Your task to perform on an android device: find snoozed emails in the gmail app Image 0: 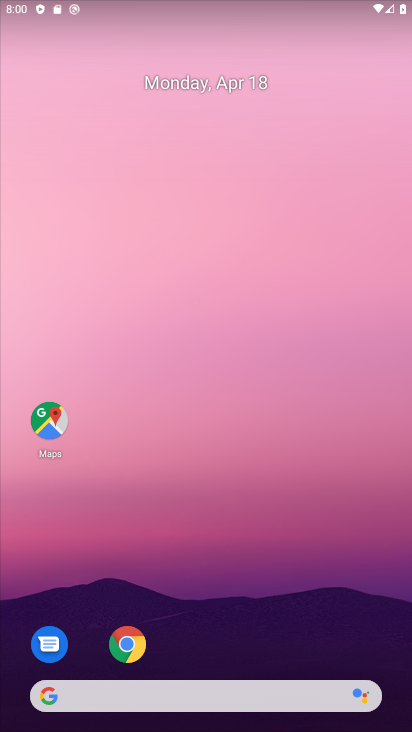
Step 0: drag from (230, 689) to (187, 122)
Your task to perform on an android device: find snoozed emails in the gmail app Image 1: 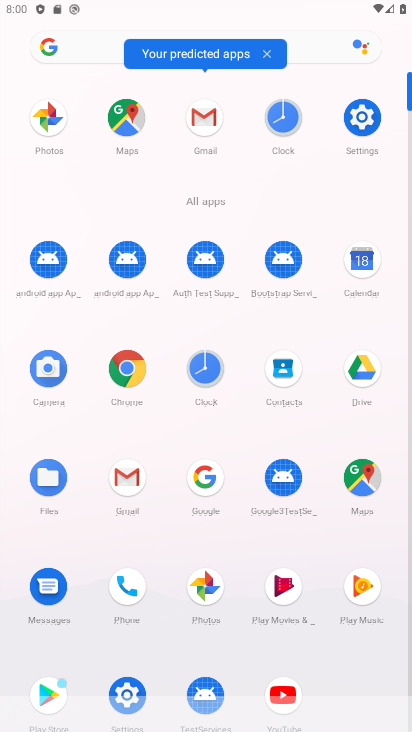
Step 1: click (129, 477)
Your task to perform on an android device: find snoozed emails in the gmail app Image 2: 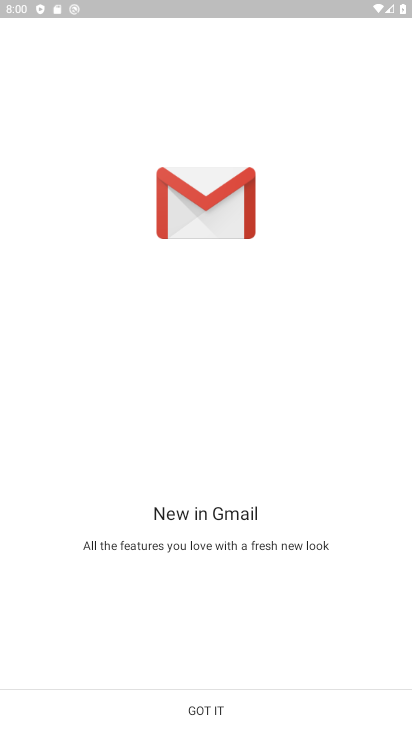
Step 2: click (180, 709)
Your task to perform on an android device: find snoozed emails in the gmail app Image 3: 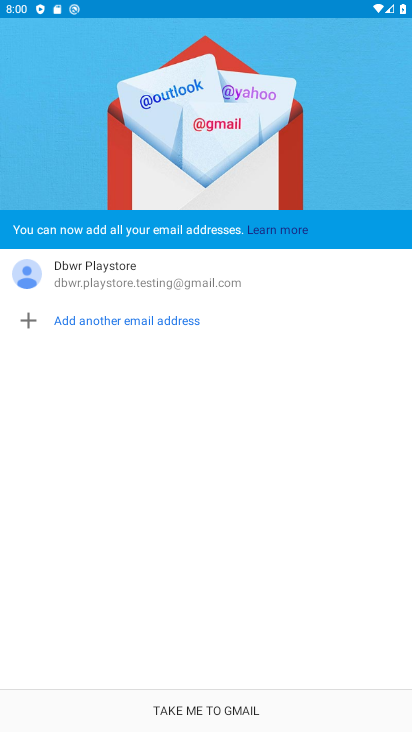
Step 3: click (180, 709)
Your task to perform on an android device: find snoozed emails in the gmail app Image 4: 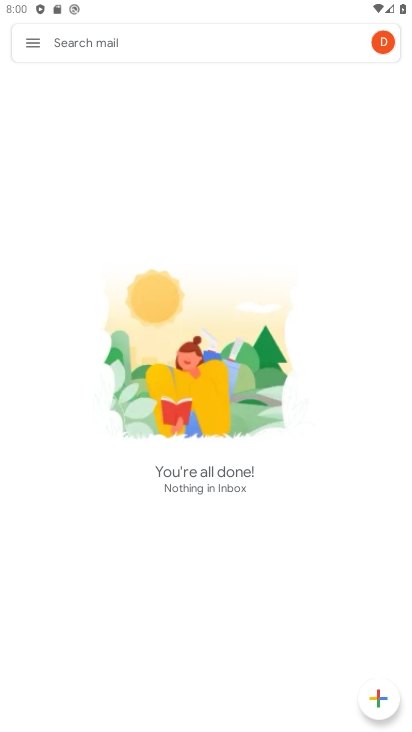
Step 4: click (32, 44)
Your task to perform on an android device: find snoozed emails in the gmail app Image 5: 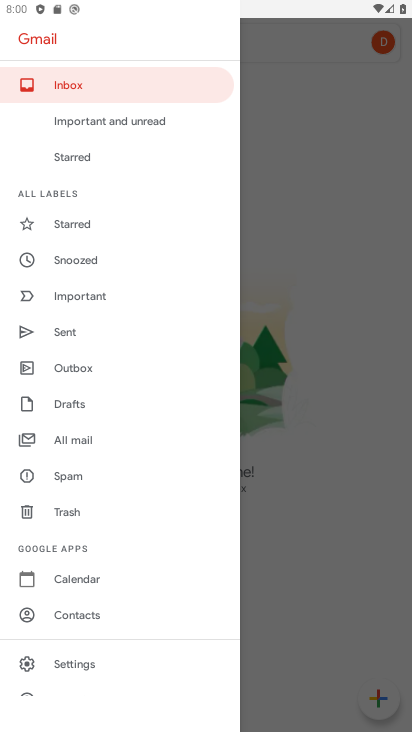
Step 5: click (80, 256)
Your task to perform on an android device: find snoozed emails in the gmail app Image 6: 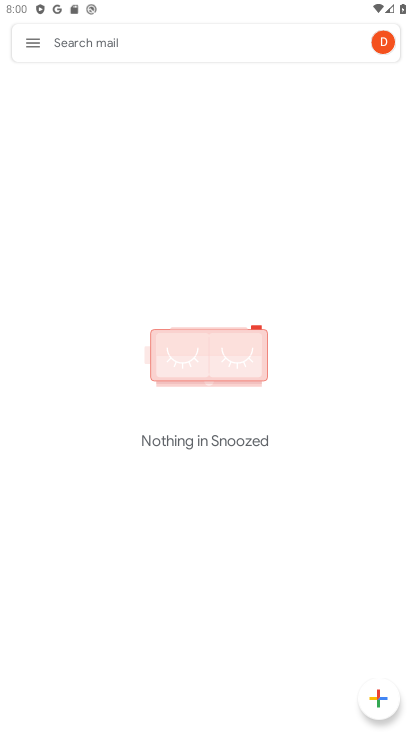
Step 6: task complete